Your task to perform on an android device: turn vacation reply on in the gmail app Image 0: 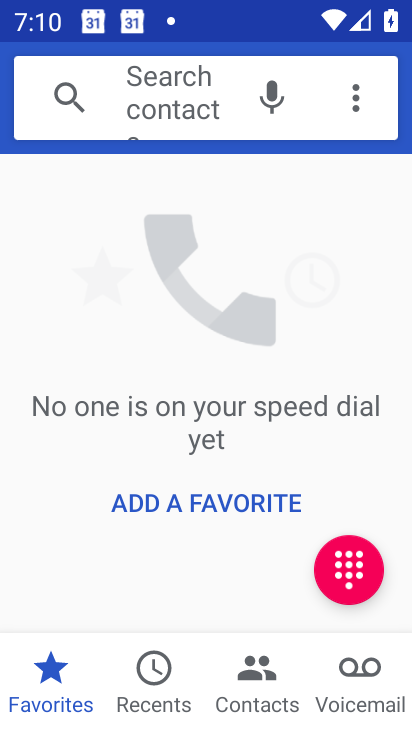
Step 0: press home button
Your task to perform on an android device: turn vacation reply on in the gmail app Image 1: 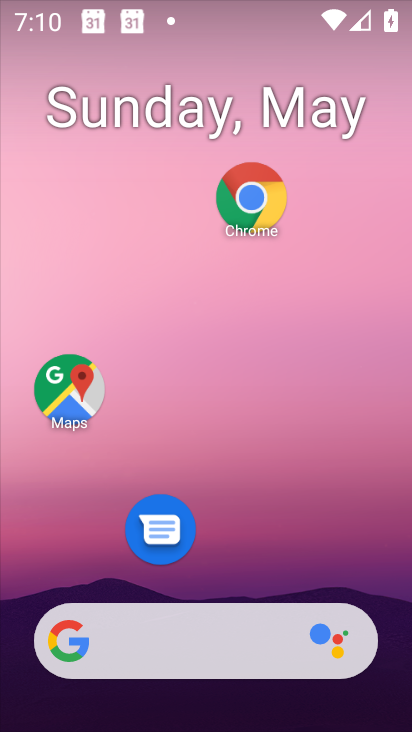
Step 1: drag from (218, 510) to (219, 191)
Your task to perform on an android device: turn vacation reply on in the gmail app Image 2: 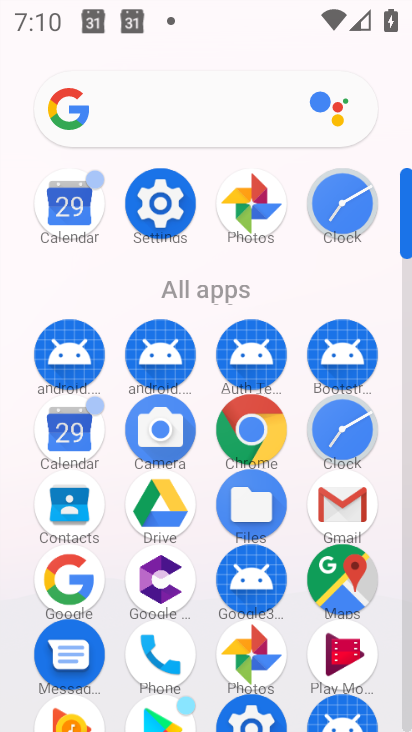
Step 2: click (356, 499)
Your task to perform on an android device: turn vacation reply on in the gmail app Image 3: 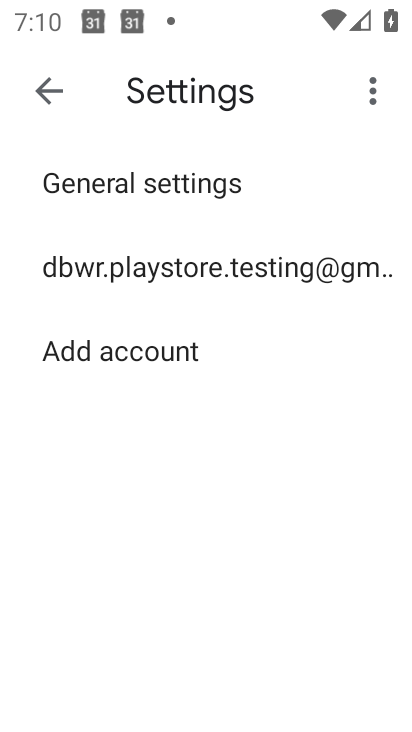
Step 3: click (322, 278)
Your task to perform on an android device: turn vacation reply on in the gmail app Image 4: 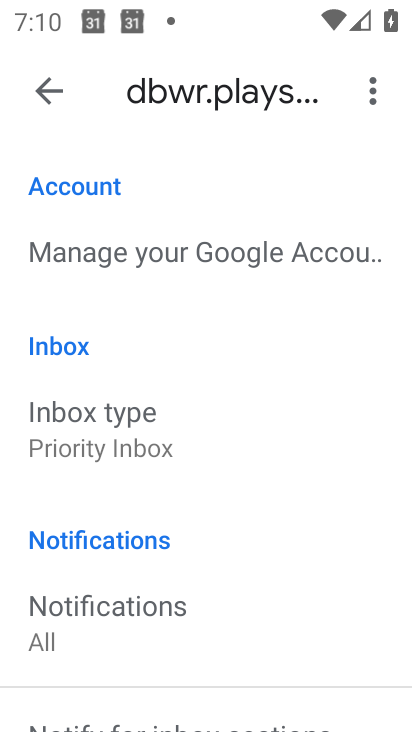
Step 4: drag from (115, 633) to (102, 333)
Your task to perform on an android device: turn vacation reply on in the gmail app Image 5: 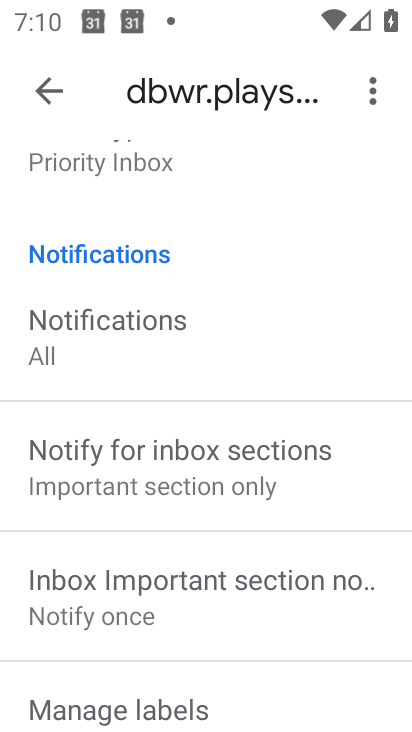
Step 5: drag from (157, 632) to (175, 297)
Your task to perform on an android device: turn vacation reply on in the gmail app Image 6: 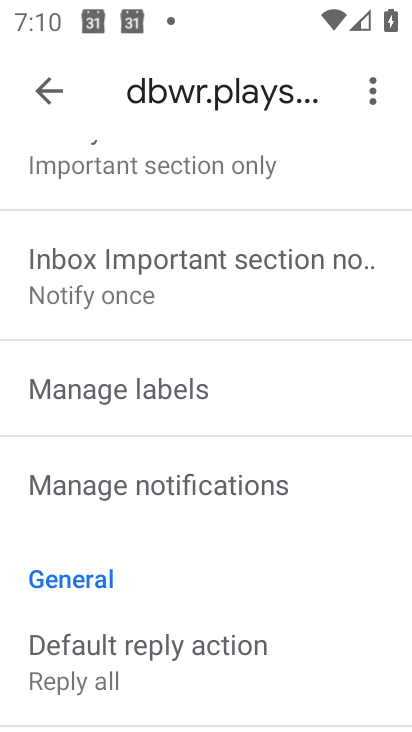
Step 6: drag from (158, 601) to (163, 293)
Your task to perform on an android device: turn vacation reply on in the gmail app Image 7: 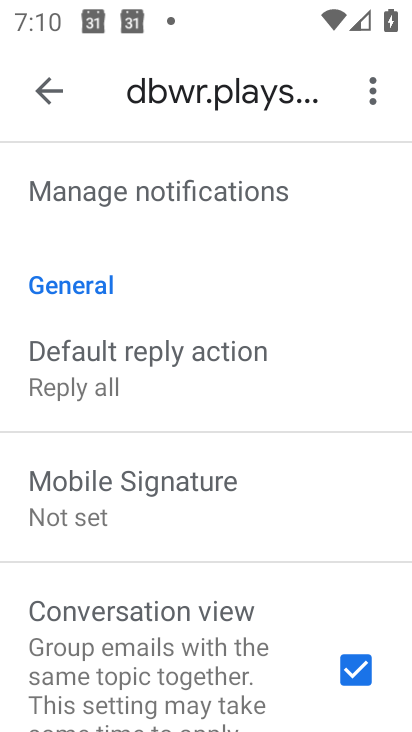
Step 7: drag from (161, 653) to (234, 267)
Your task to perform on an android device: turn vacation reply on in the gmail app Image 8: 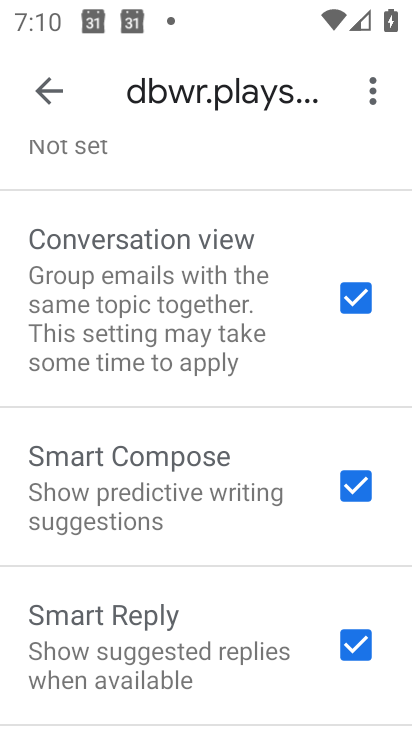
Step 8: drag from (140, 629) to (229, 256)
Your task to perform on an android device: turn vacation reply on in the gmail app Image 9: 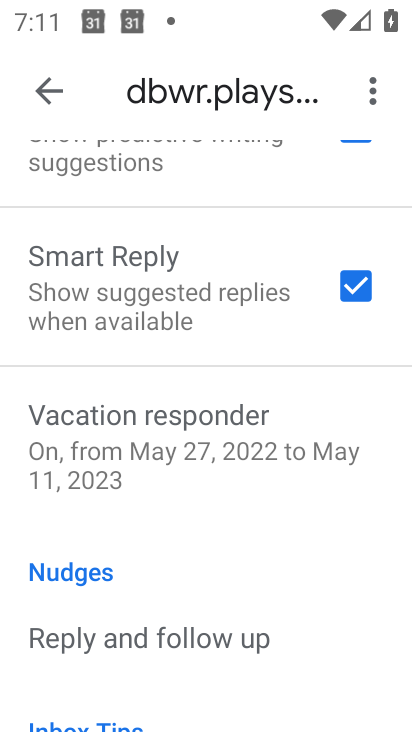
Step 9: click (189, 441)
Your task to perform on an android device: turn vacation reply on in the gmail app Image 10: 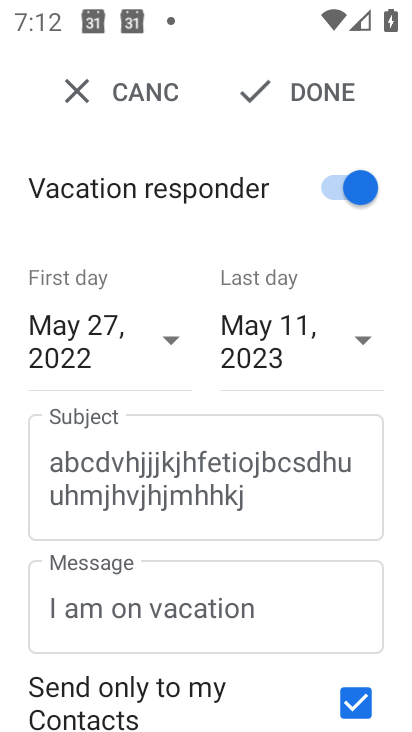
Step 10: task complete